Your task to perform on an android device: turn off sleep mode Image 0: 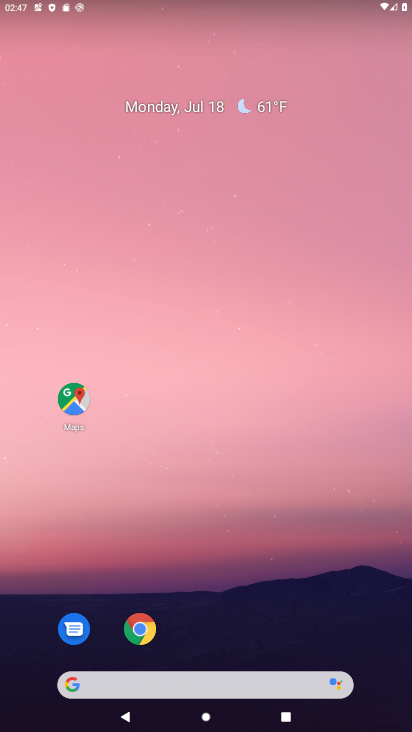
Step 0: drag from (238, 678) to (294, 168)
Your task to perform on an android device: turn off sleep mode Image 1: 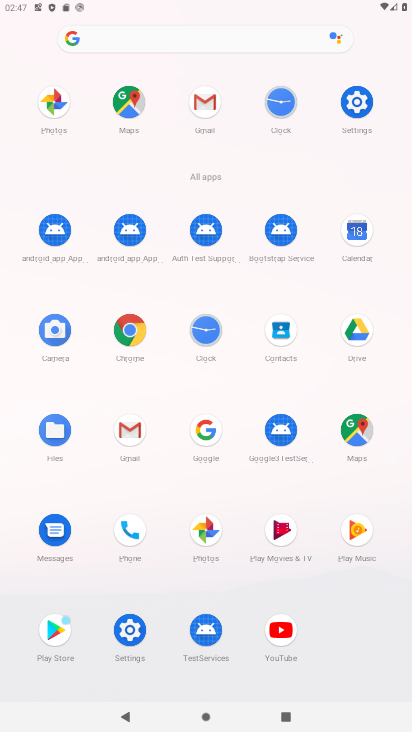
Step 1: click (363, 103)
Your task to perform on an android device: turn off sleep mode Image 2: 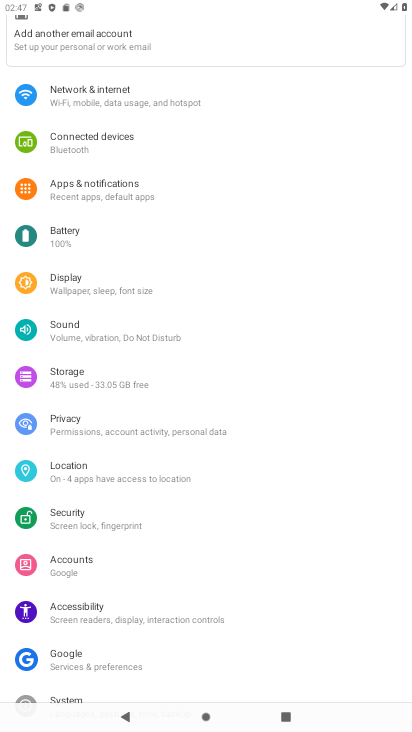
Step 2: click (74, 295)
Your task to perform on an android device: turn off sleep mode Image 3: 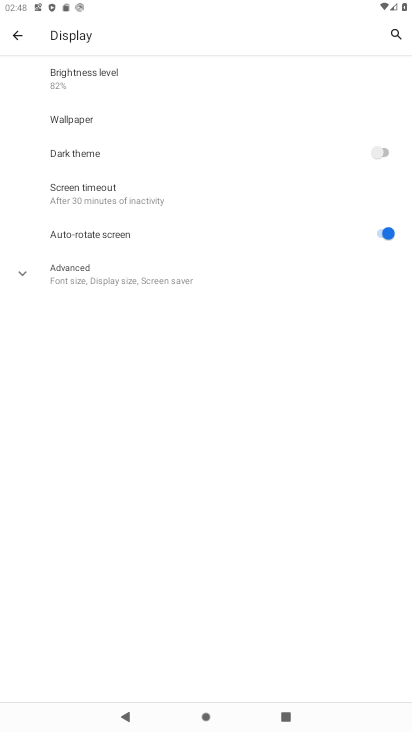
Step 3: click (141, 200)
Your task to perform on an android device: turn off sleep mode Image 4: 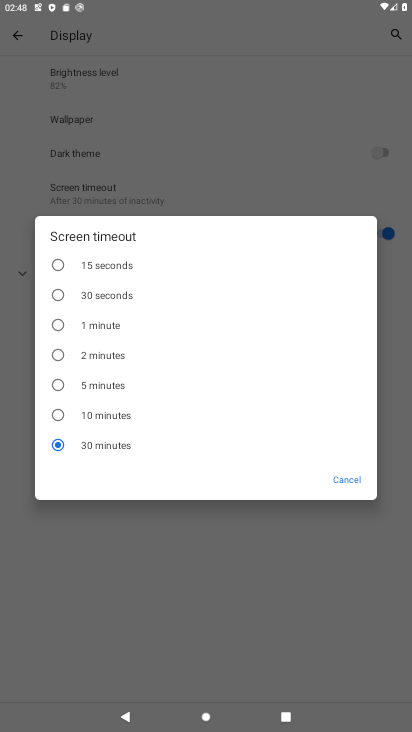
Step 4: click (344, 475)
Your task to perform on an android device: turn off sleep mode Image 5: 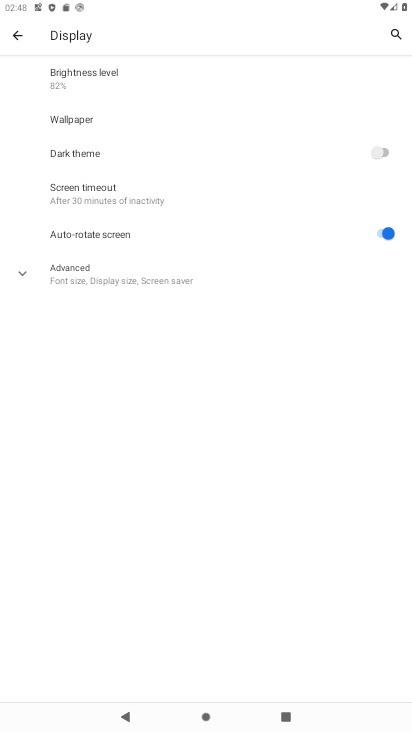
Step 5: task complete